Your task to perform on an android device: turn on location history Image 0: 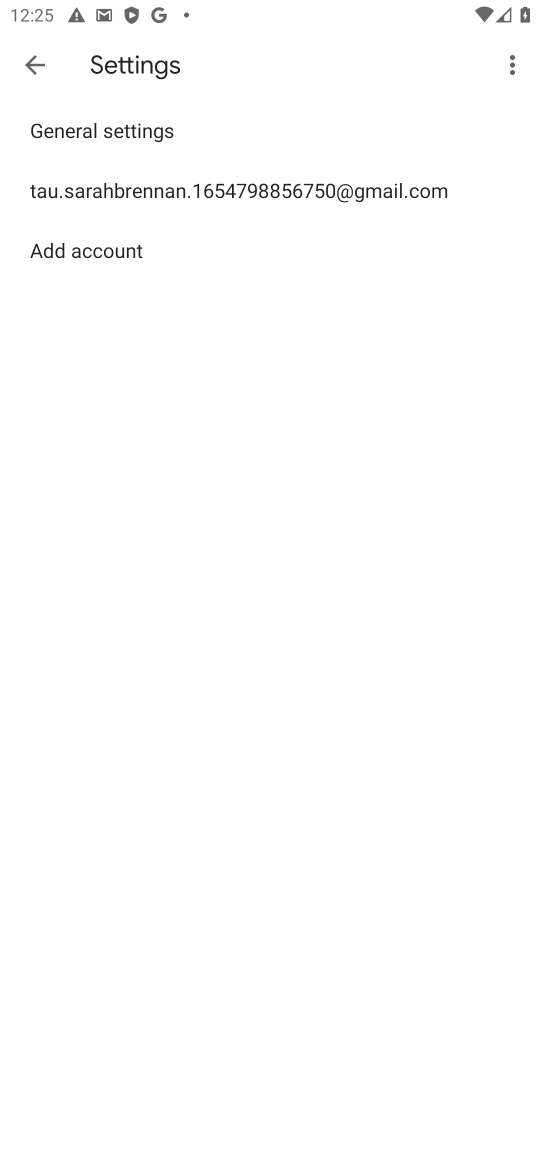
Step 0: task complete